Your task to perform on an android device: turn on data saver in the chrome app Image 0: 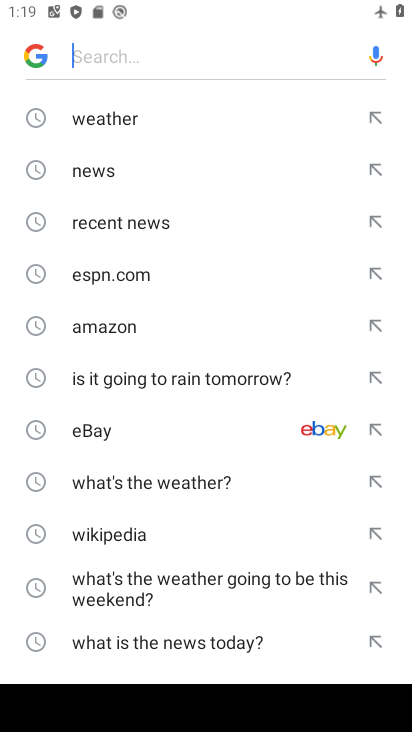
Step 0: press home button
Your task to perform on an android device: turn on data saver in the chrome app Image 1: 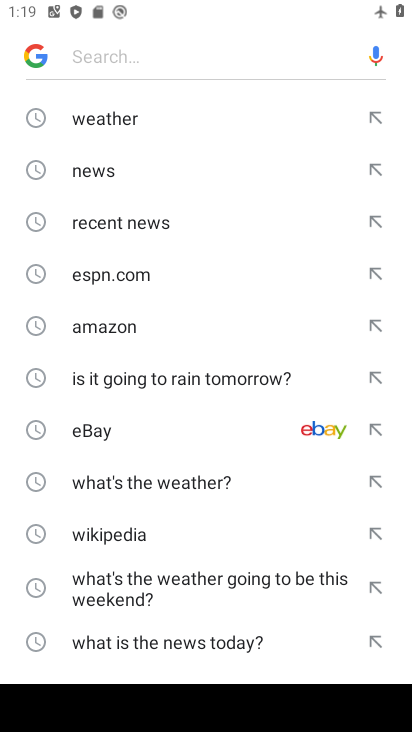
Step 1: press home button
Your task to perform on an android device: turn on data saver in the chrome app Image 2: 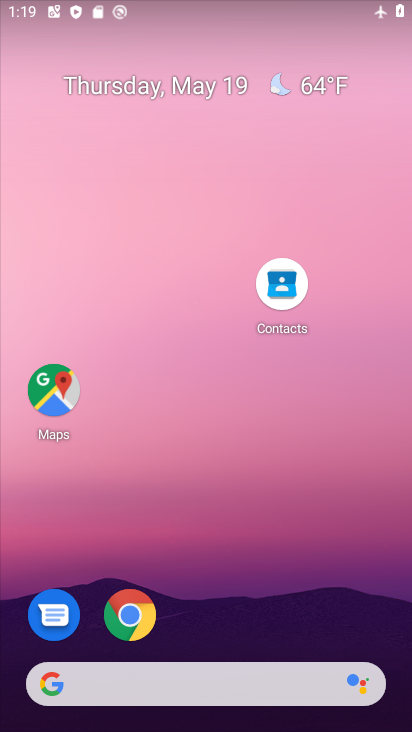
Step 2: drag from (207, 689) to (236, 173)
Your task to perform on an android device: turn on data saver in the chrome app Image 3: 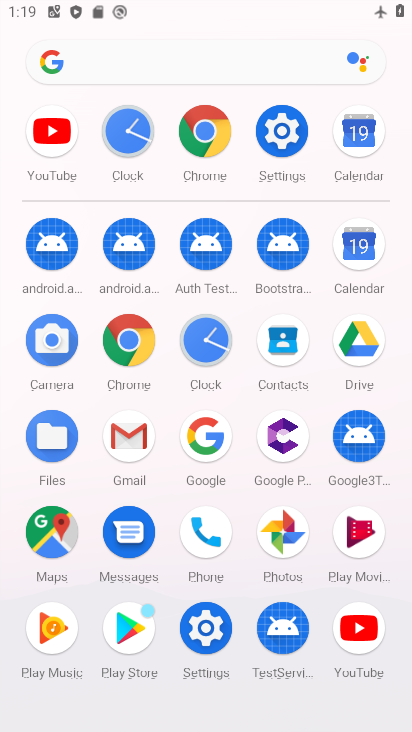
Step 3: click (193, 139)
Your task to perform on an android device: turn on data saver in the chrome app Image 4: 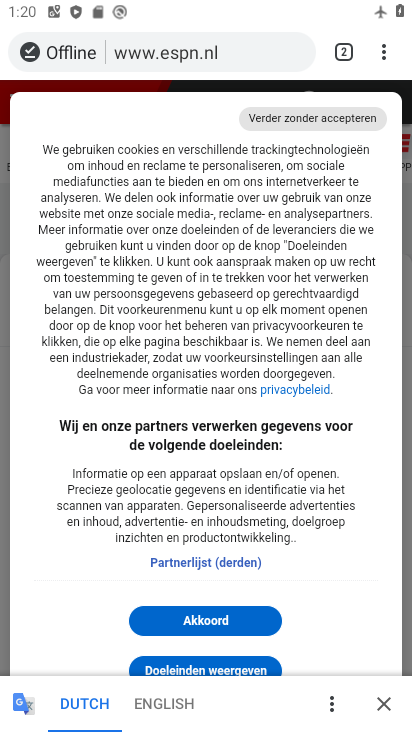
Step 4: click (379, 52)
Your task to perform on an android device: turn on data saver in the chrome app Image 5: 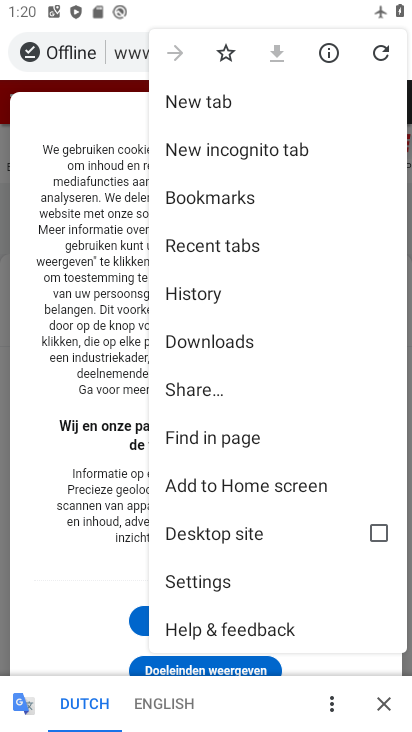
Step 5: click (233, 581)
Your task to perform on an android device: turn on data saver in the chrome app Image 6: 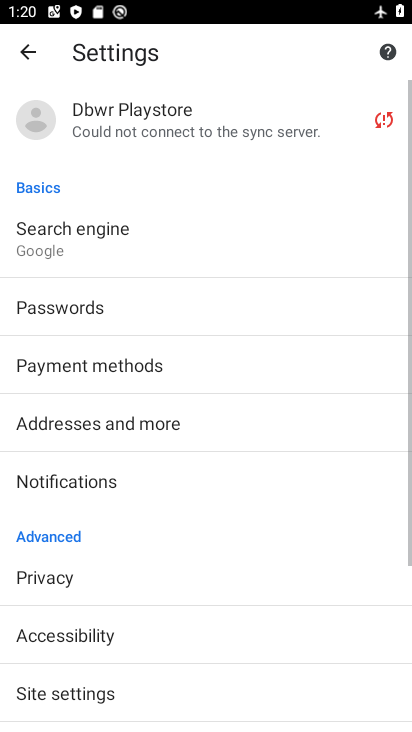
Step 6: drag from (222, 565) to (280, 164)
Your task to perform on an android device: turn on data saver in the chrome app Image 7: 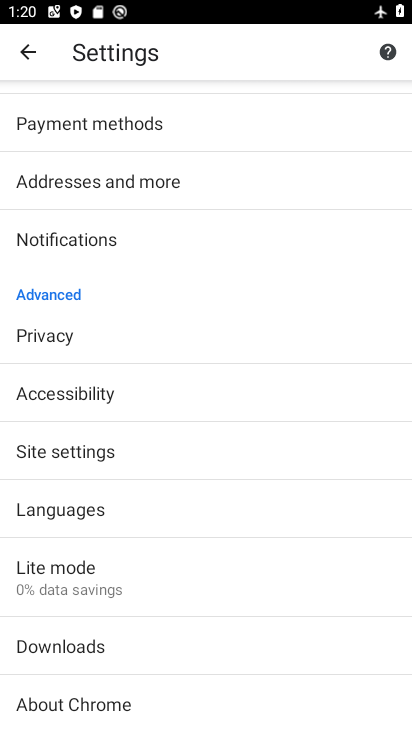
Step 7: click (189, 570)
Your task to perform on an android device: turn on data saver in the chrome app Image 8: 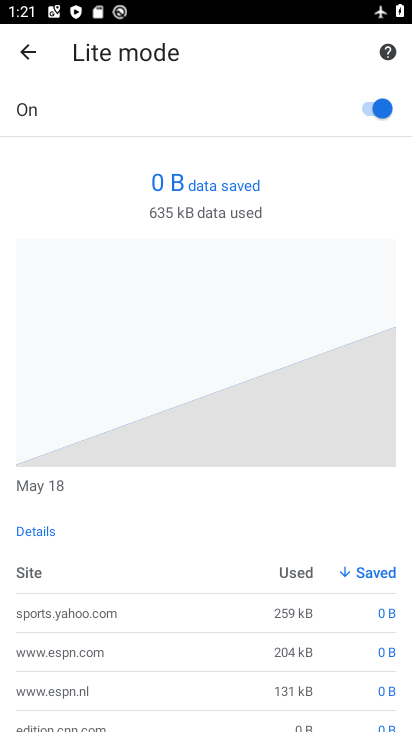
Step 8: task complete